Your task to perform on an android device: Open the stopwatch Image 0: 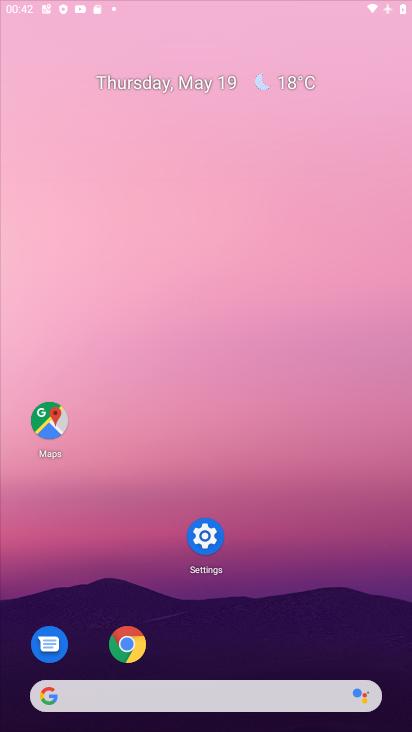
Step 0: click (287, 623)
Your task to perform on an android device: Open the stopwatch Image 1: 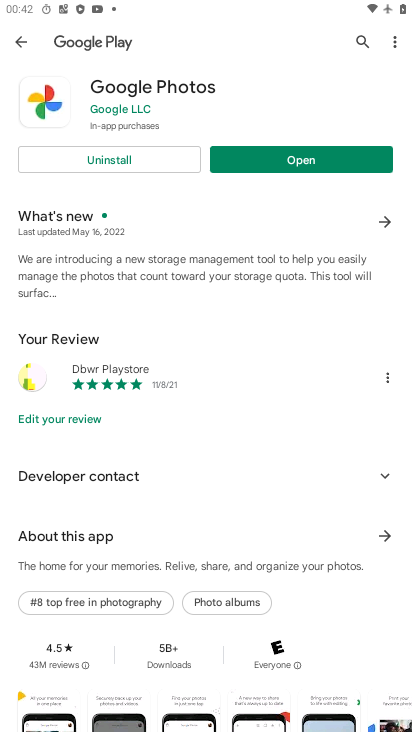
Step 1: press home button
Your task to perform on an android device: Open the stopwatch Image 2: 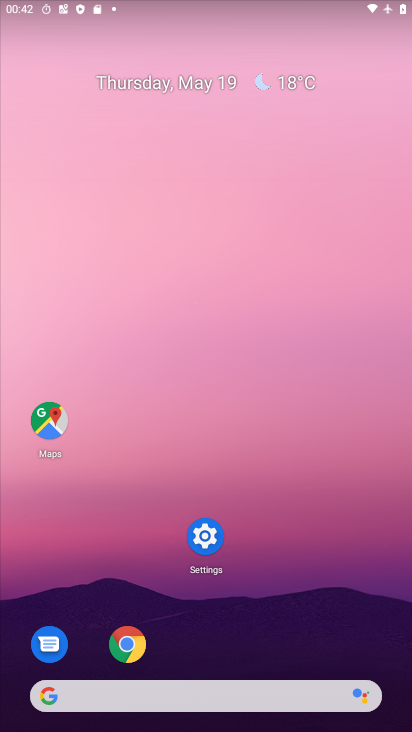
Step 2: drag from (319, 628) to (320, 326)
Your task to perform on an android device: Open the stopwatch Image 3: 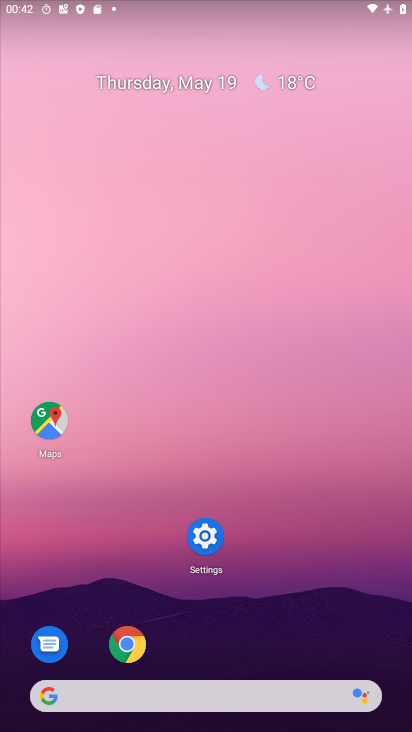
Step 3: drag from (339, 352) to (360, 5)
Your task to perform on an android device: Open the stopwatch Image 4: 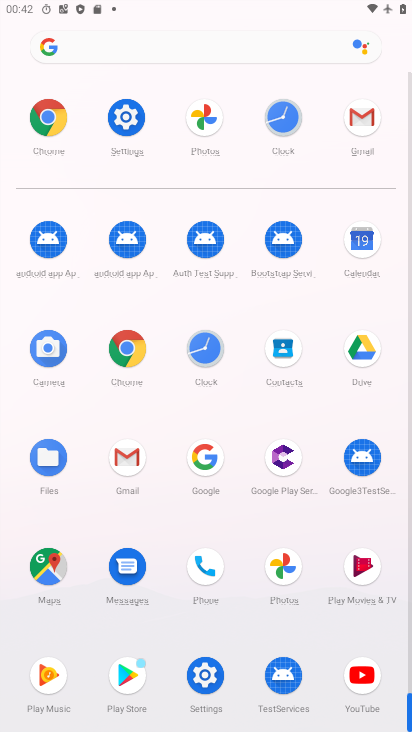
Step 4: click (280, 126)
Your task to perform on an android device: Open the stopwatch Image 5: 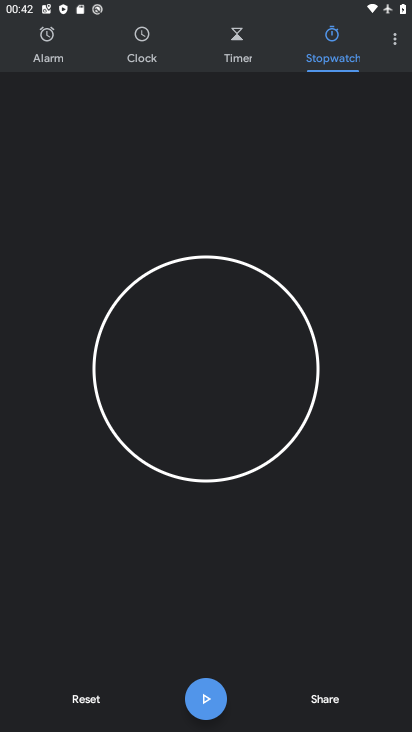
Step 5: task complete